Your task to perform on an android device: Go to Amazon Image 0: 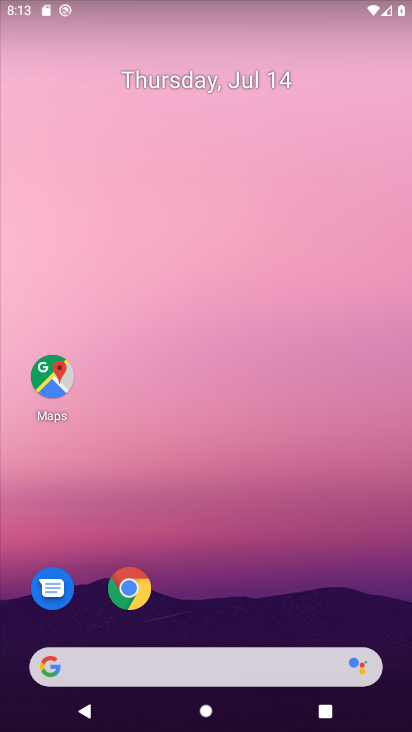
Step 0: drag from (351, 585) to (400, 275)
Your task to perform on an android device: Go to Amazon Image 1: 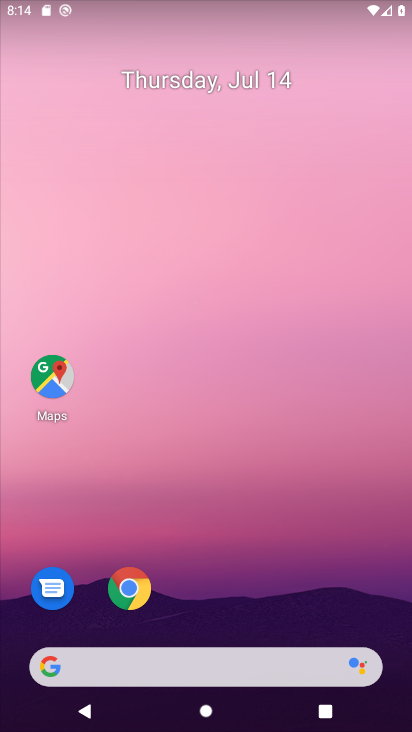
Step 1: drag from (335, 539) to (349, 50)
Your task to perform on an android device: Go to Amazon Image 2: 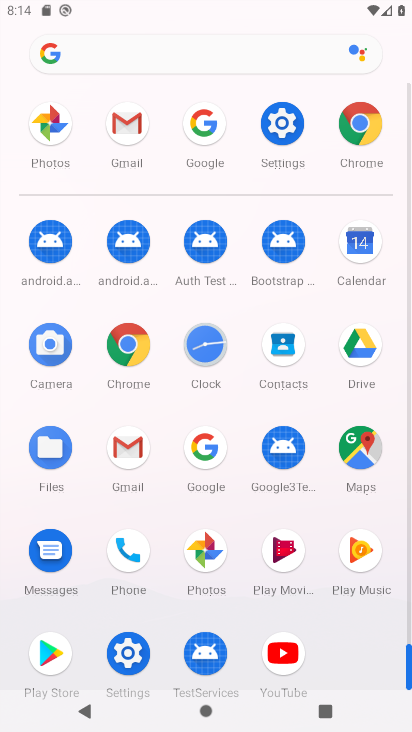
Step 2: click (355, 132)
Your task to perform on an android device: Go to Amazon Image 3: 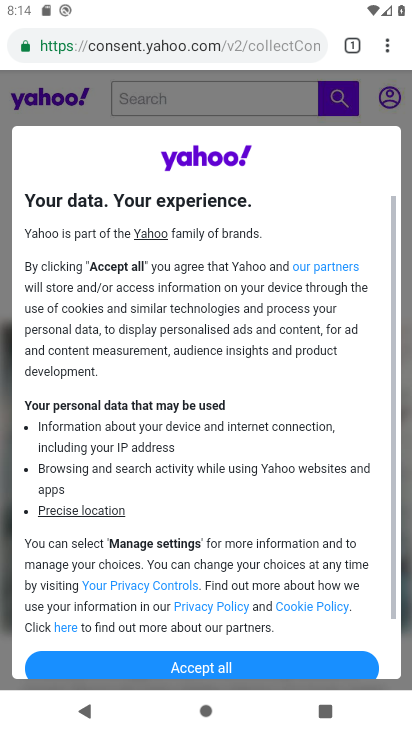
Step 3: click (280, 38)
Your task to perform on an android device: Go to Amazon Image 4: 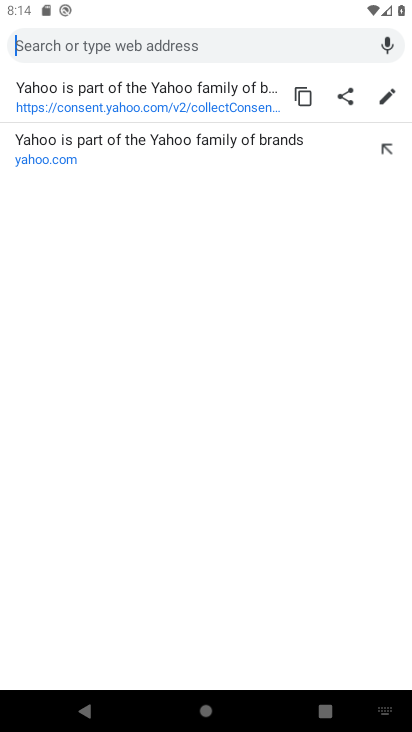
Step 4: type "amazon"
Your task to perform on an android device: Go to Amazon Image 5: 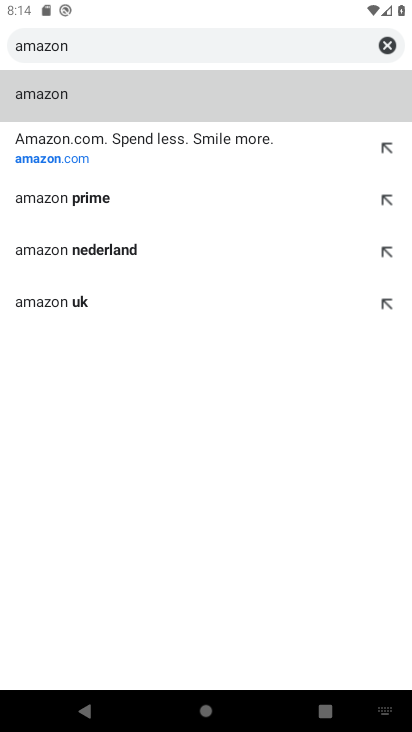
Step 5: click (175, 101)
Your task to perform on an android device: Go to Amazon Image 6: 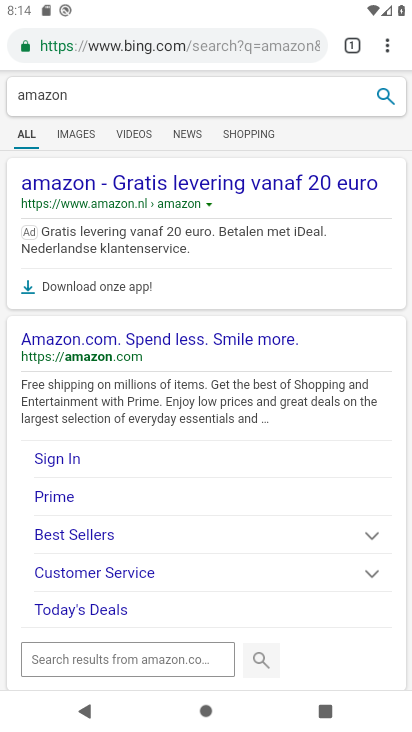
Step 6: task complete